Your task to perform on an android device: open app "File Manager" (install if not already installed) Image 0: 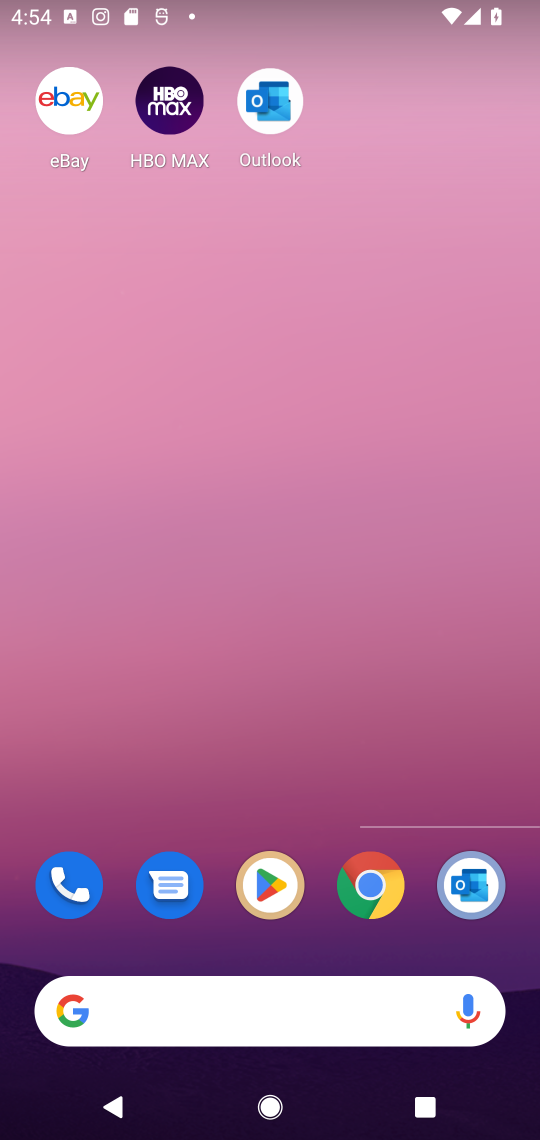
Step 0: press home button
Your task to perform on an android device: open app "File Manager" (install if not already installed) Image 1: 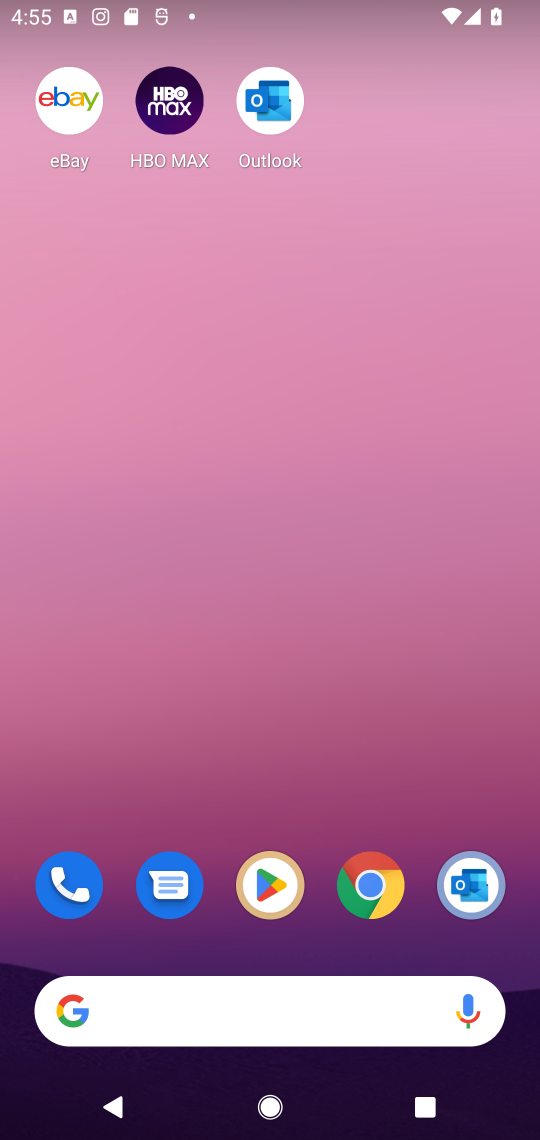
Step 1: click (264, 879)
Your task to perform on an android device: open app "File Manager" (install if not already installed) Image 2: 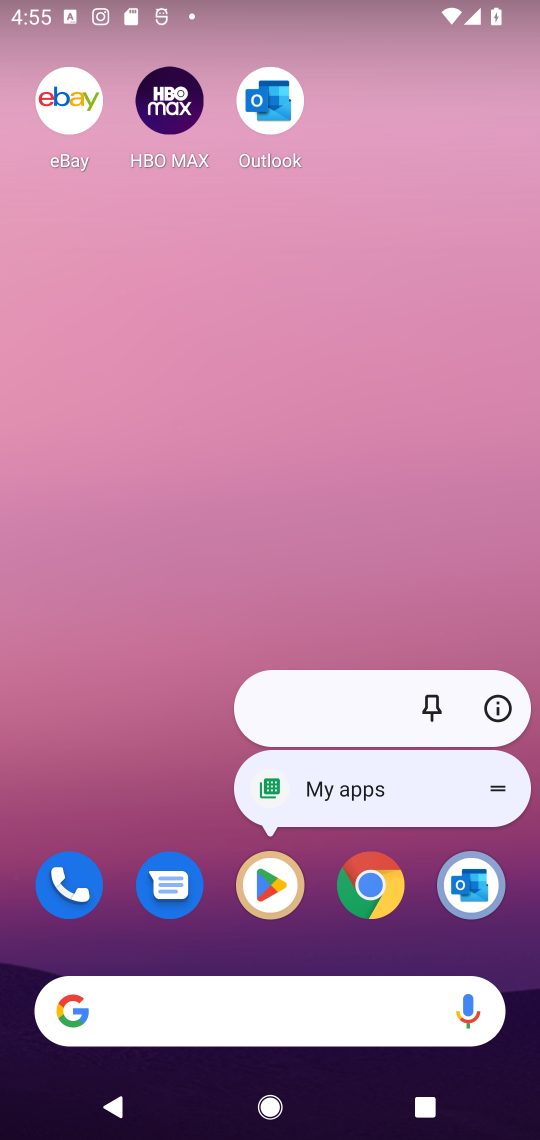
Step 2: click (264, 879)
Your task to perform on an android device: open app "File Manager" (install if not already installed) Image 3: 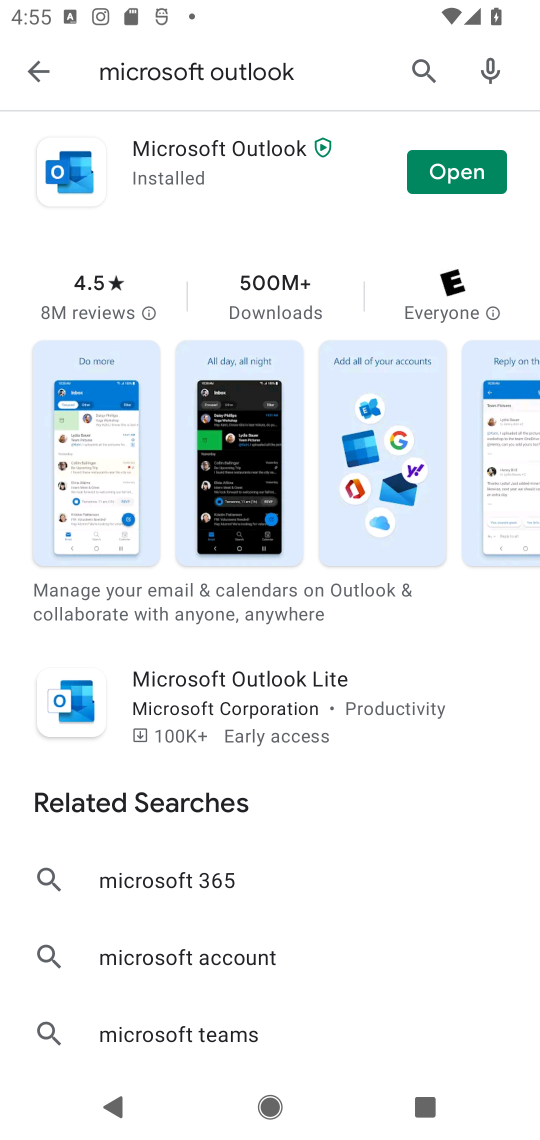
Step 3: click (419, 71)
Your task to perform on an android device: open app "File Manager" (install if not already installed) Image 4: 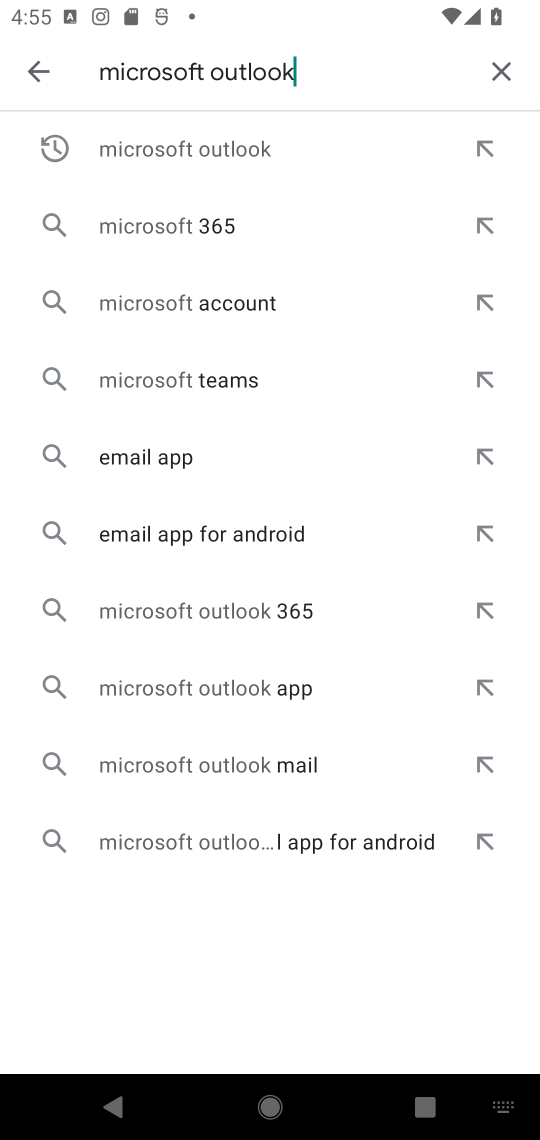
Step 4: click (497, 64)
Your task to perform on an android device: open app "File Manager" (install if not already installed) Image 5: 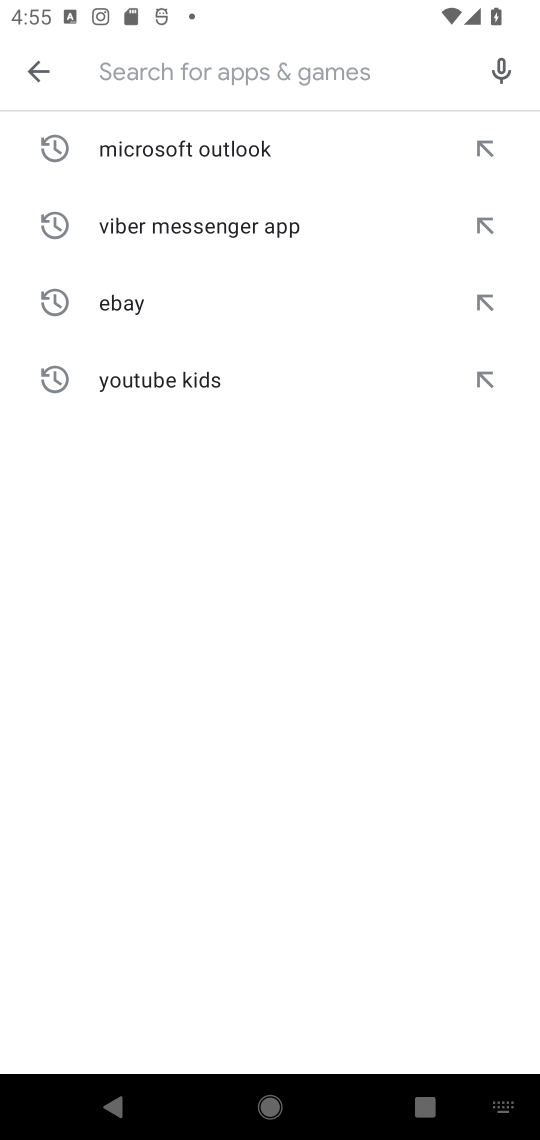
Step 5: type "File Manager"
Your task to perform on an android device: open app "File Manager" (install if not already installed) Image 6: 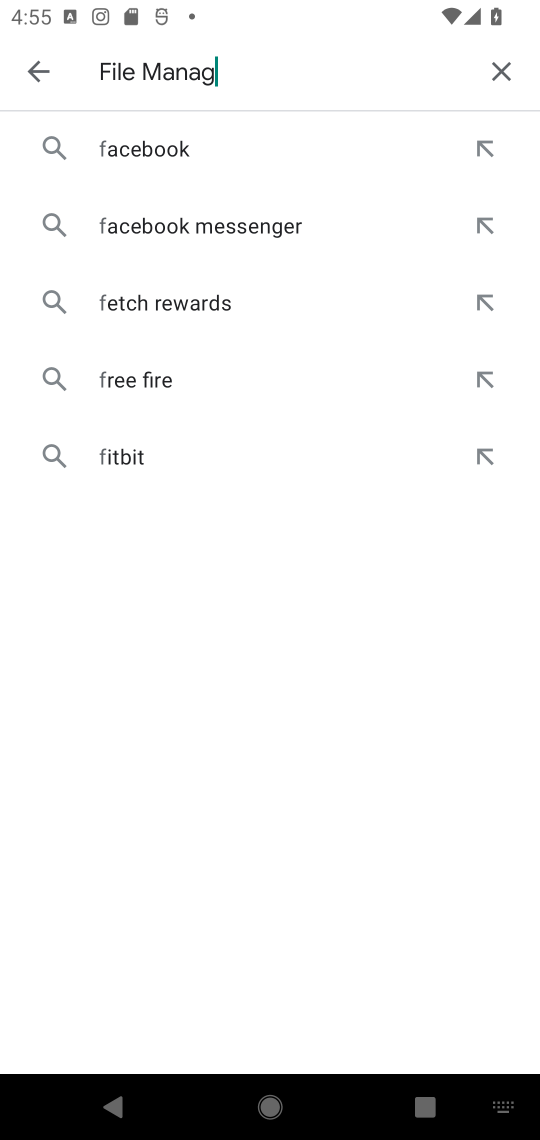
Step 6: type ""
Your task to perform on an android device: open app "File Manager" (install if not already installed) Image 7: 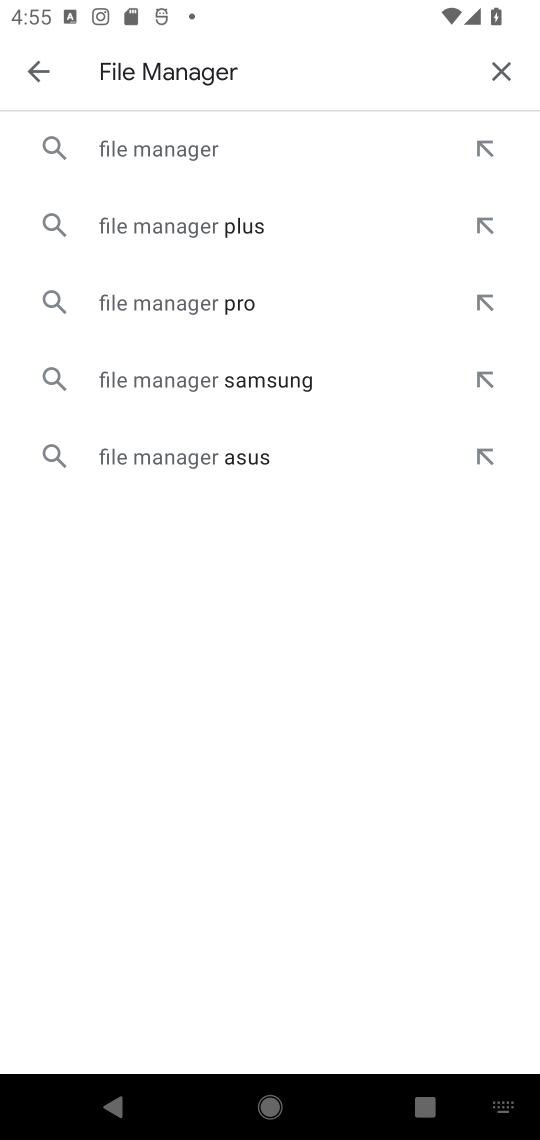
Step 7: click (183, 150)
Your task to perform on an android device: open app "File Manager" (install if not already installed) Image 8: 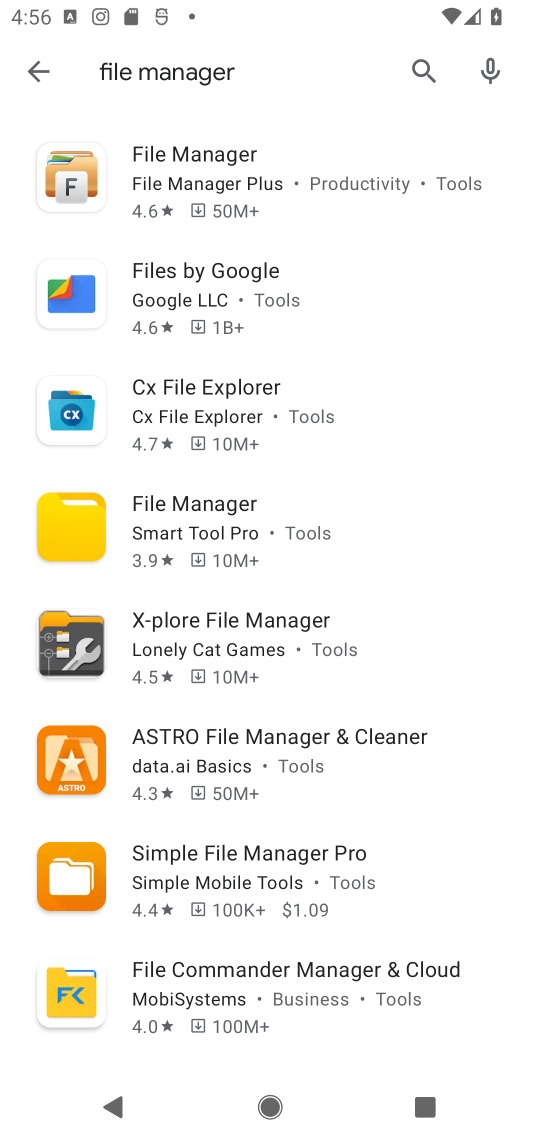
Step 8: click (183, 521)
Your task to perform on an android device: open app "File Manager" (install if not already installed) Image 9: 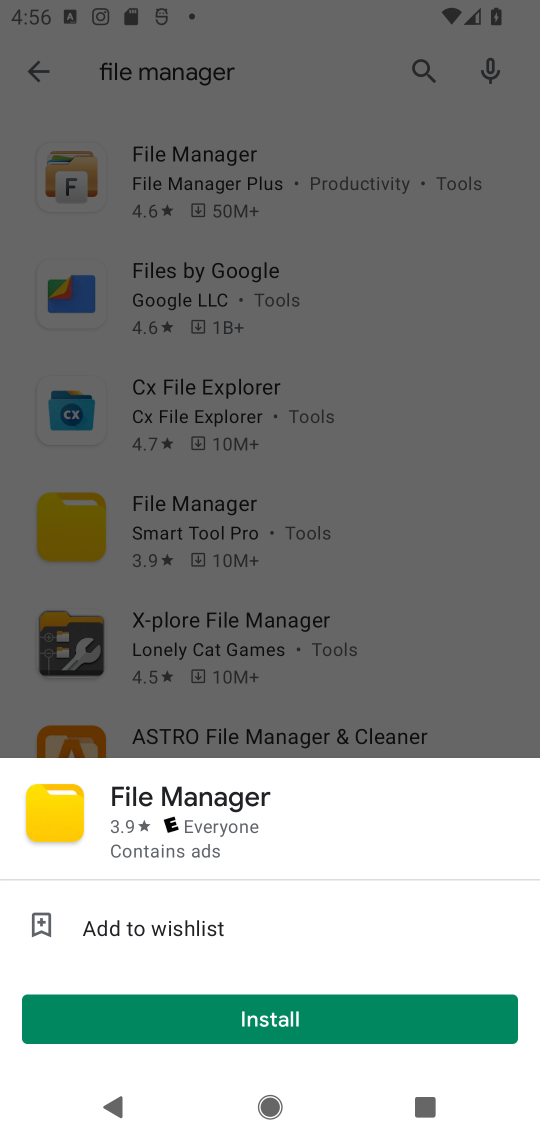
Step 9: click (287, 1016)
Your task to perform on an android device: open app "File Manager" (install if not already installed) Image 10: 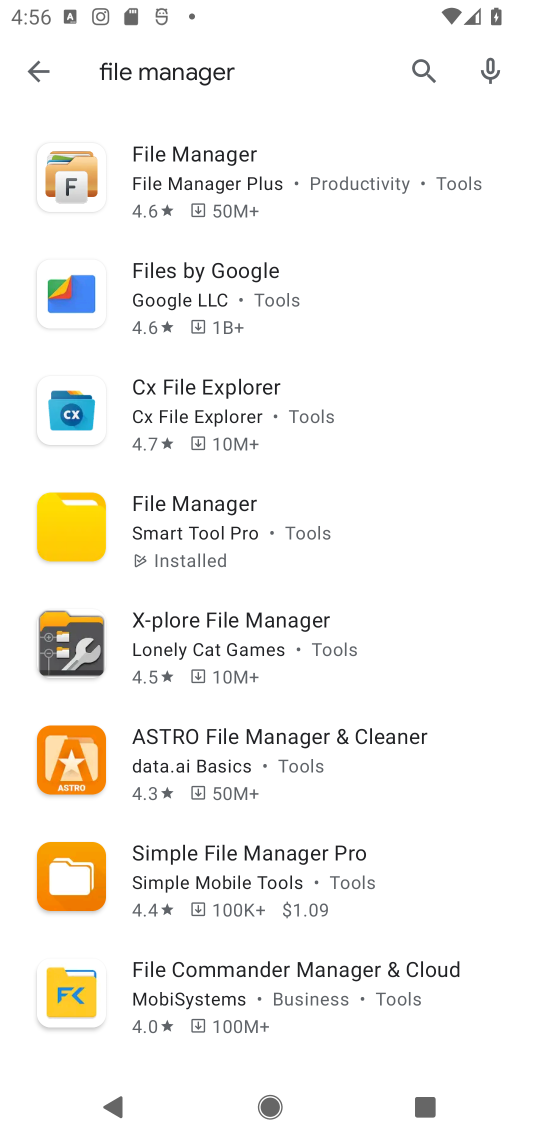
Step 10: click (166, 524)
Your task to perform on an android device: open app "File Manager" (install if not already installed) Image 11: 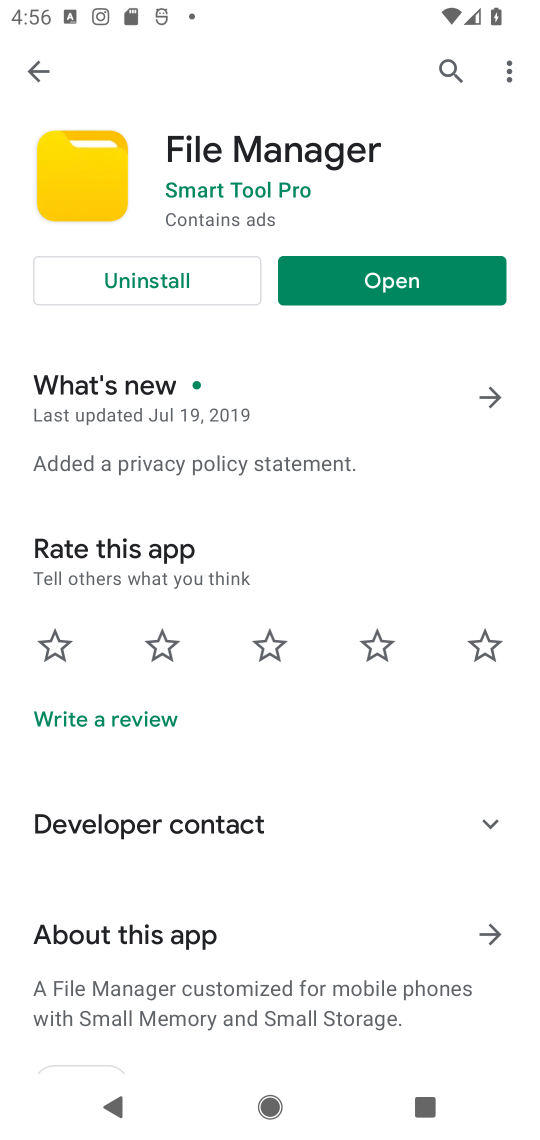
Step 11: task complete